Your task to perform on an android device: delete browsing data in the chrome app Image 0: 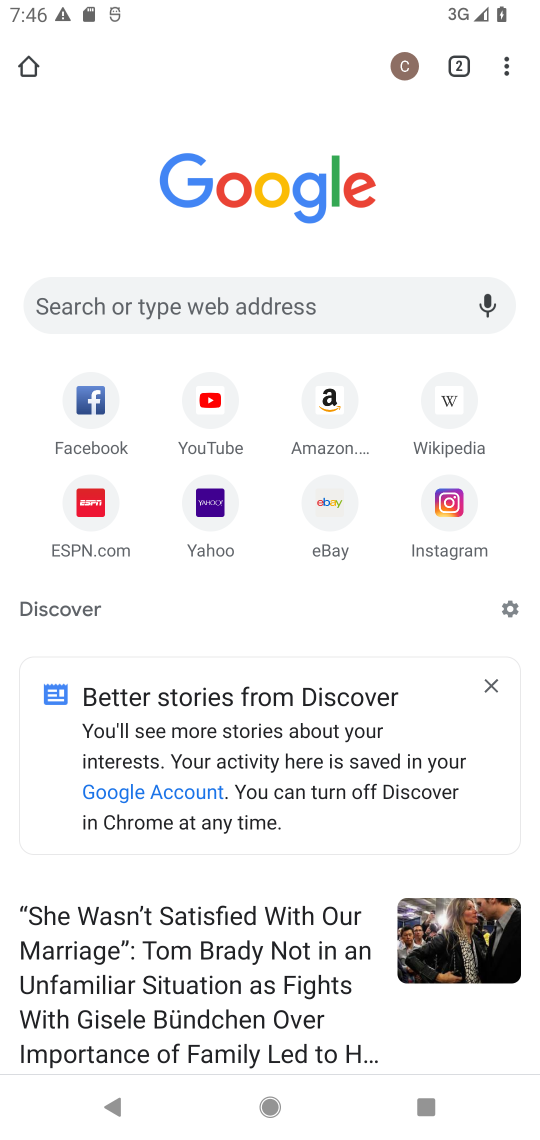
Step 0: click (511, 69)
Your task to perform on an android device: delete browsing data in the chrome app Image 1: 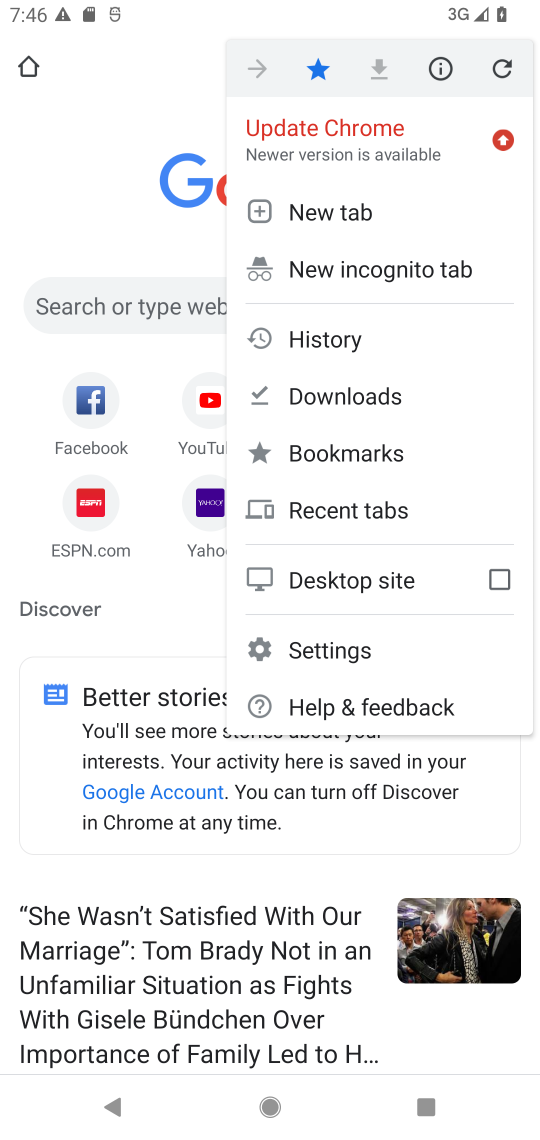
Step 1: click (319, 333)
Your task to perform on an android device: delete browsing data in the chrome app Image 2: 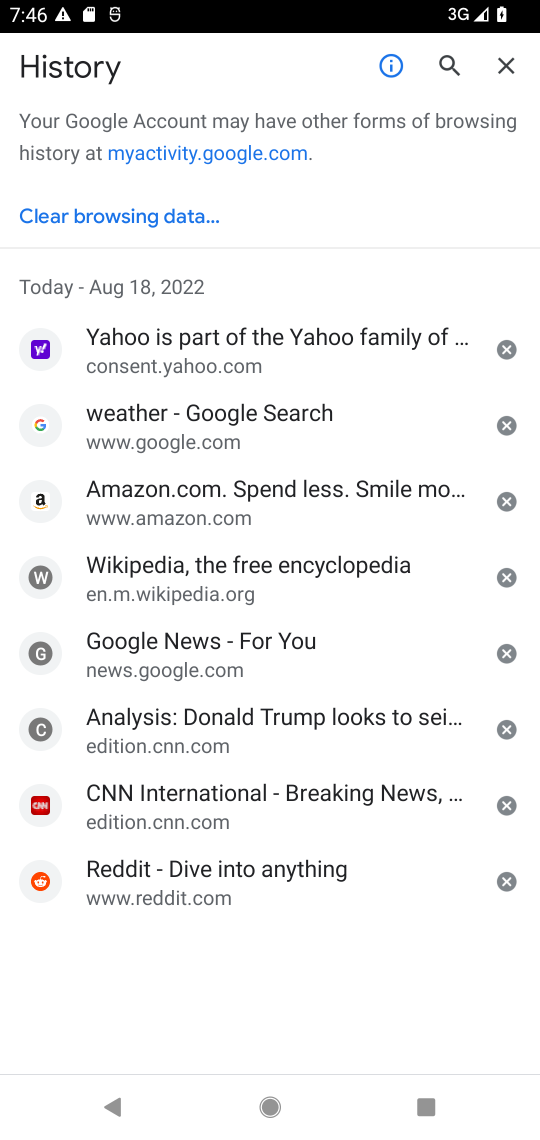
Step 2: click (98, 216)
Your task to perform on an android device: delete browsing data in the chrome app Image 3: 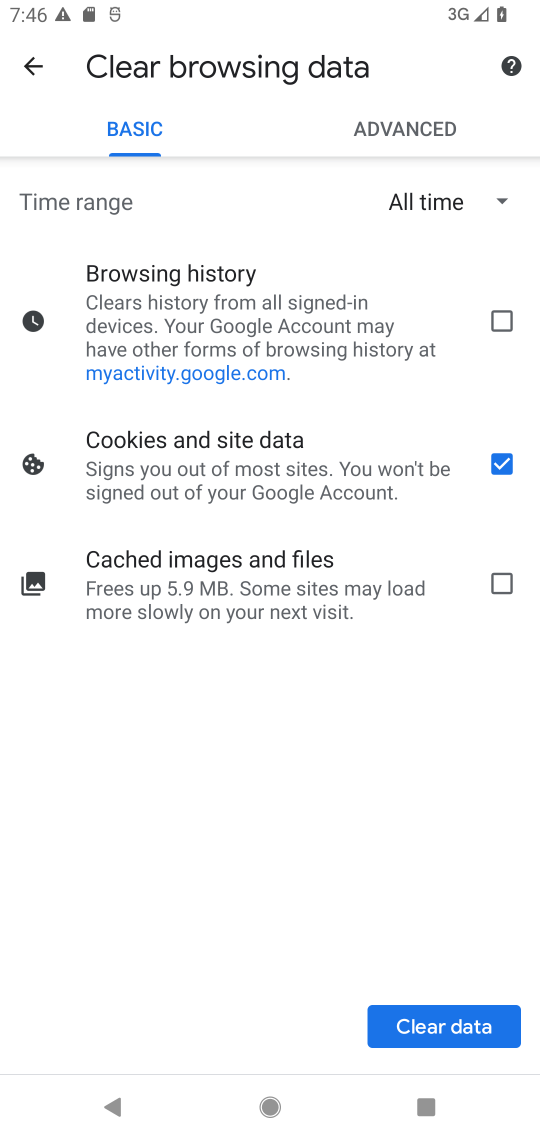
Step 3: click (491, 313)
Your task to perform on an android device: delete browsing data in the chrome app Image 4: 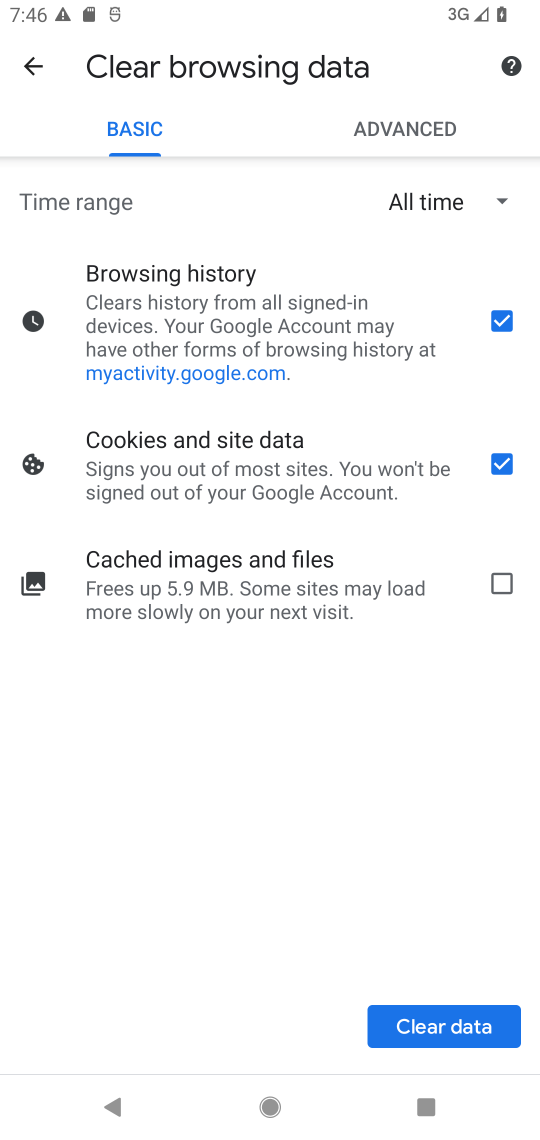
Step 4: click (495, 457)
Your task to perform on an android device: delete browsing data in the chrome app Image 5: 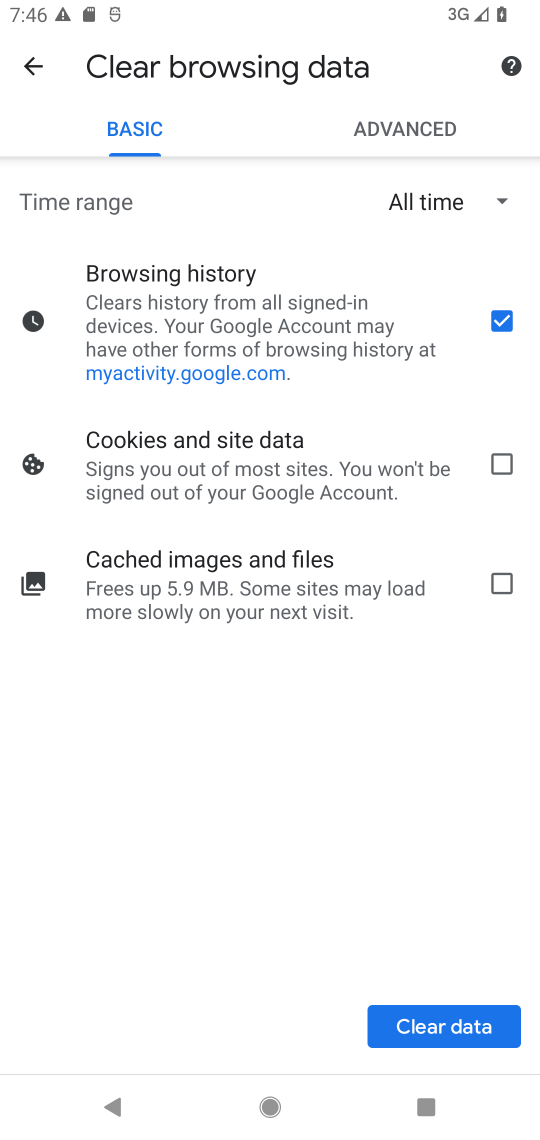
Step 5: click (446, 1008)
Your task to perform on an android device: delete browsing data in the chrome app Image 6: 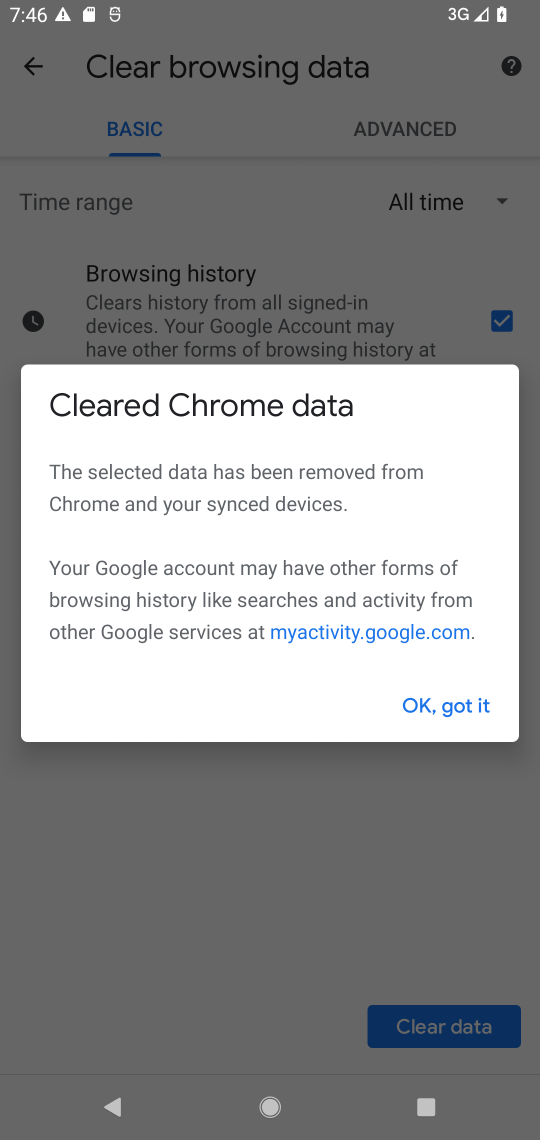
Step 6: click (436, 700)
Your task to perform on an android device: delete browsing data in the chrome app Image 7: 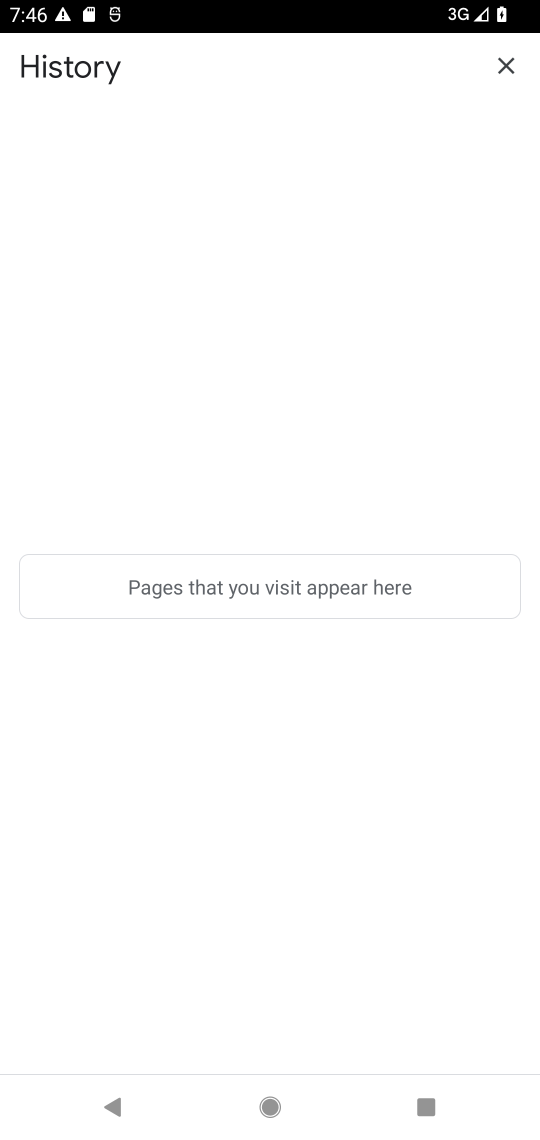
Step 7: task complete